Your task to perform on an android device: Do I have any events this weekend? Image 0: 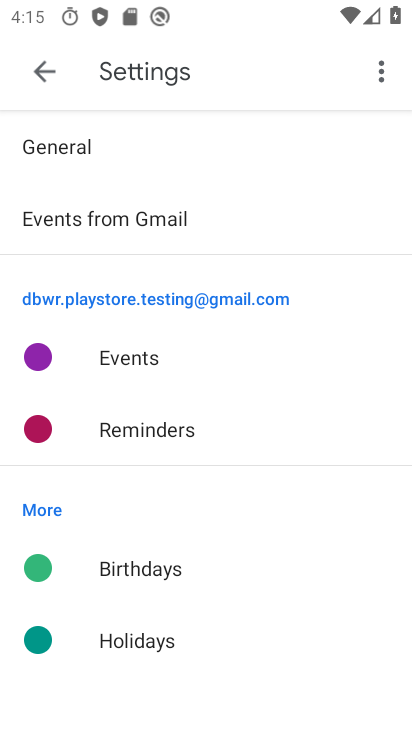
Step 0: press home button
Your task to perform on an android device: Do I have any events this weekend? Image 1: 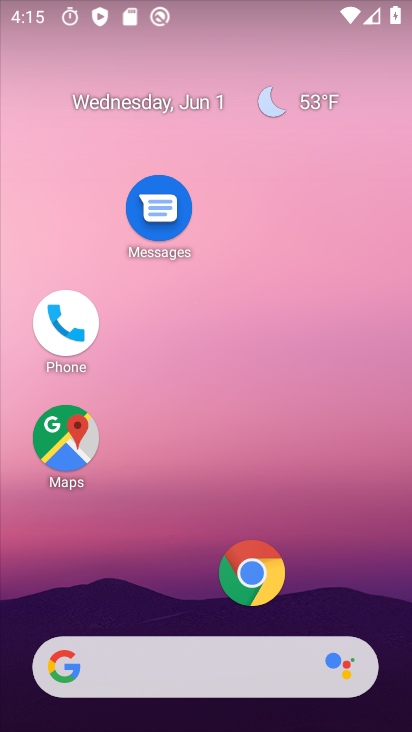
Step 1: click (174, 112)
Your task to perform on an android device: Do I have any events this weekend? Image 2: 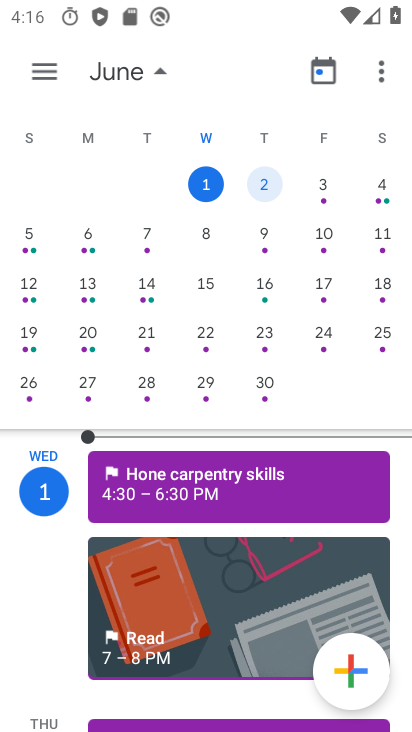
Step 2: task complete